Your task to perform on an android device: toggle notification dots Image 0: 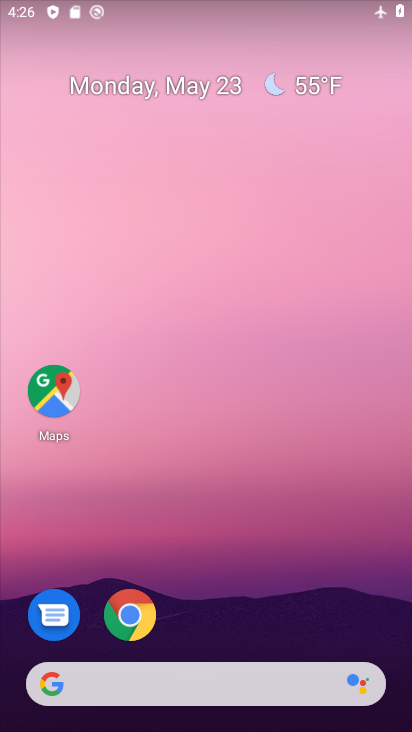
Step 0: drag from (343, 585) to (350, 289)
Your task to perform on an android device: toggle notification dots Image 1: 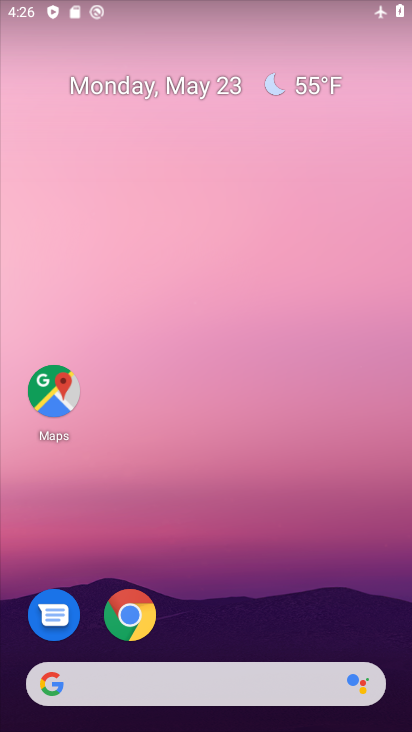
Step 1: drag from (347, 637) to (360, 274)
Your task to perform on an android device: toggle notification dots Image 2: 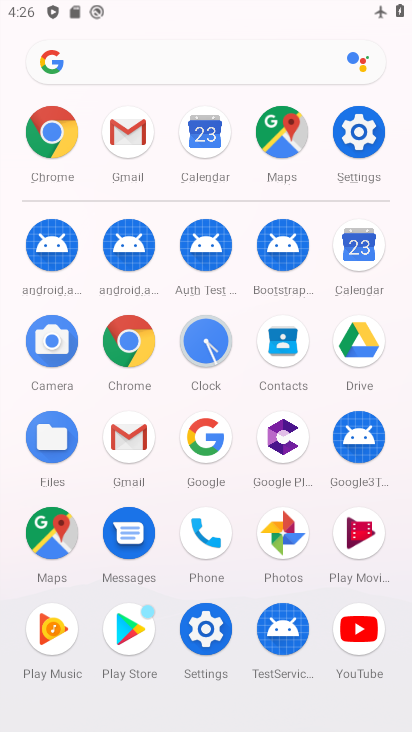
Step 2: click (227, 644)
Your task to perform on an android device: toggle notification dots Image 3: 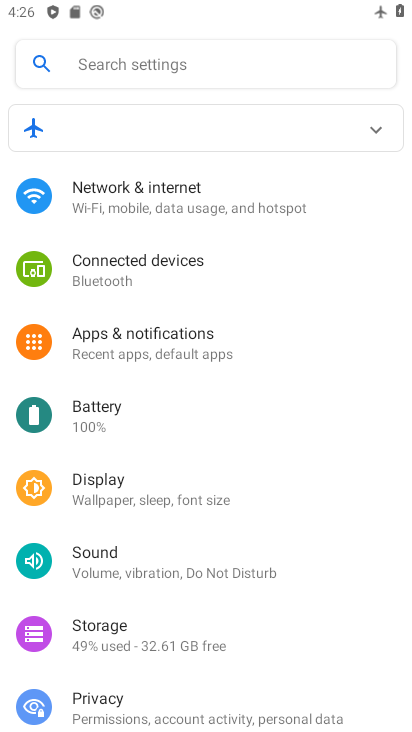
Step 3: drag from (338, 644) to (345, 534)
Your task to perform on an android device: toggle notification dots Image 4: 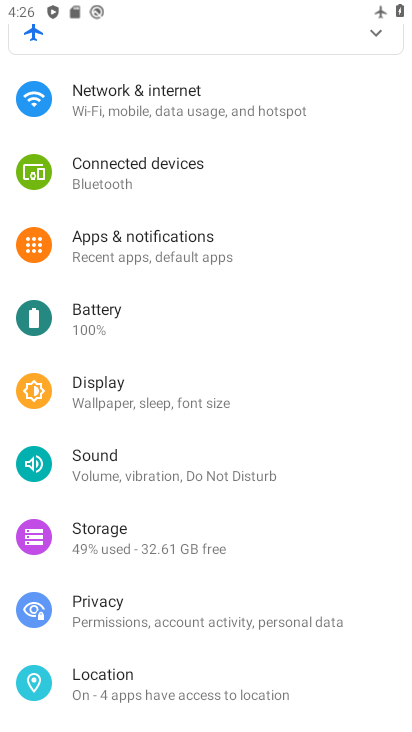
Step 4: drag from (347, 680) to (350, 563)
Your task to perform on an android device: toggle notification dots Image 5: 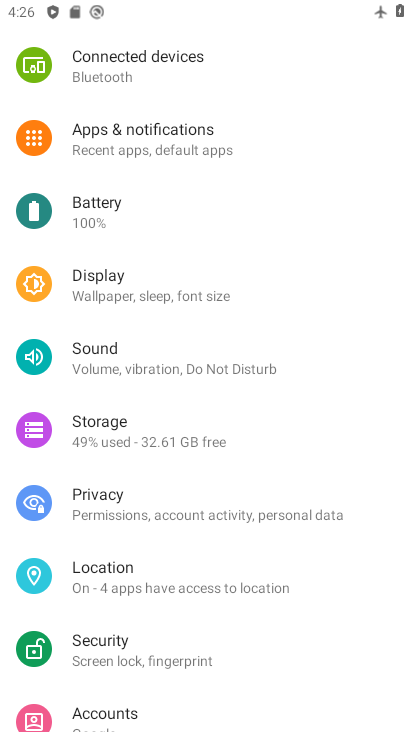
Step 5: drag from (339, 670) to (341, 574)
Your task to perform on an android device: toggle notification dots Image 6: 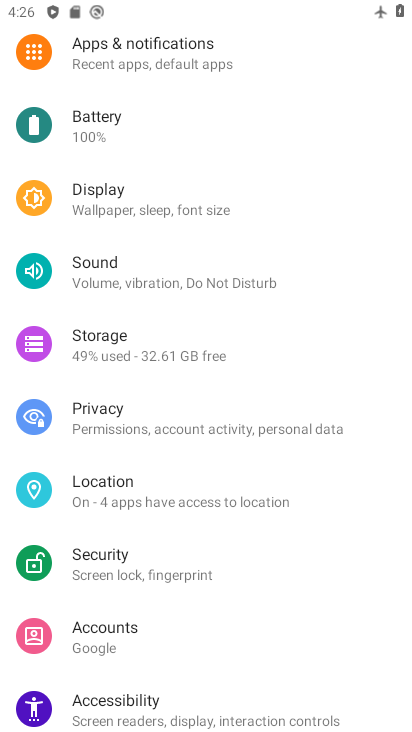
Step 6: drag from (335, 672) to (357, 556)
Your task to perform on an android device: toggle notification dots Image 7: 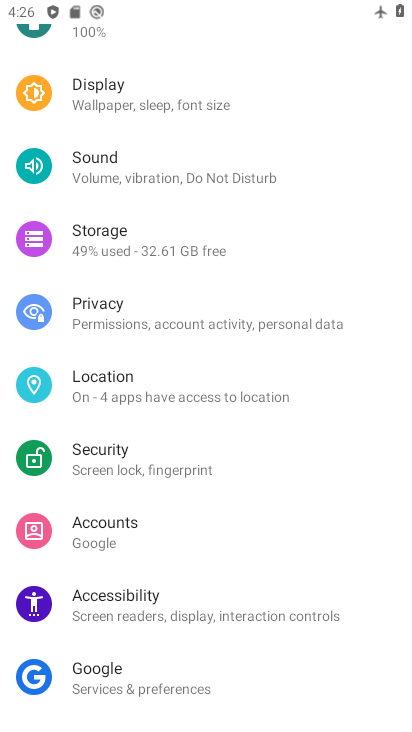
Step 7: drag from (357, 676) to (372, 544)
Your task to perform on an android device: toggle notification dots Image 8: 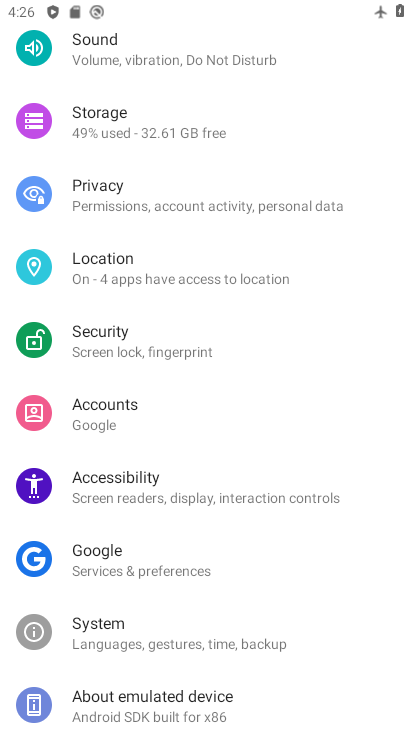
Step 8: drag from (356, 635) to (358, 498)
Your task to perform on an android device: toggle notification dots Image 9: 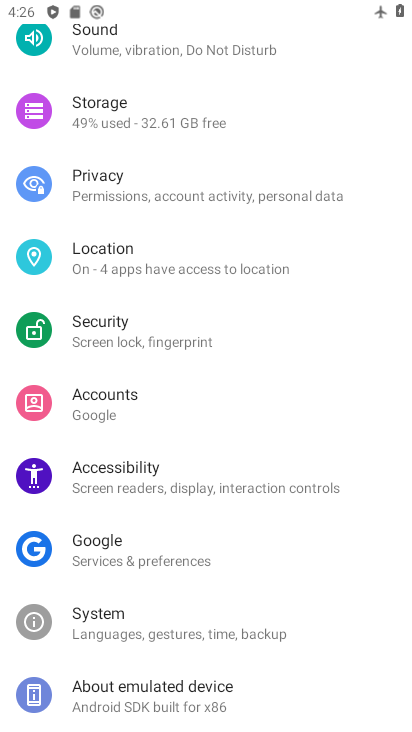
Step 9: drag from (340, 394) to (342, 496)
Your task to perform on an android device: toggle notification dots Image 10: 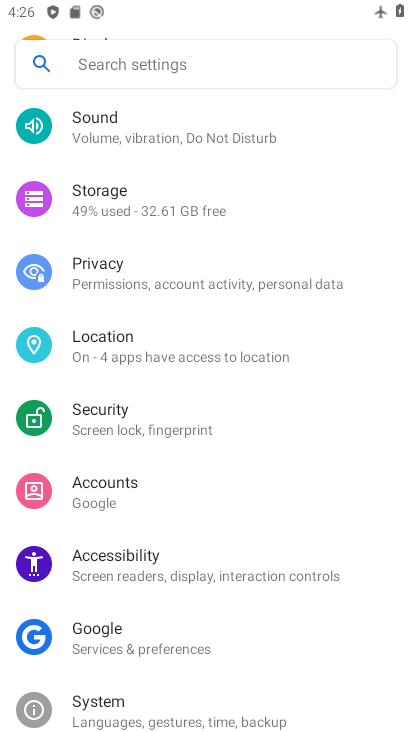
Step 10: drag from (345, 391) to (350, 490)
Your task to perform on an android device: toggle notification dots Image 11: 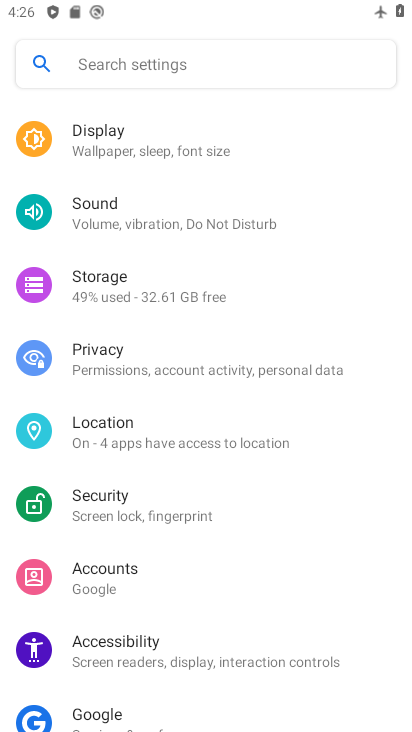
Step 11: drag from (372, 373) to (368, 488)
Your task to perform on an android device: toggle notification dots Image 12: 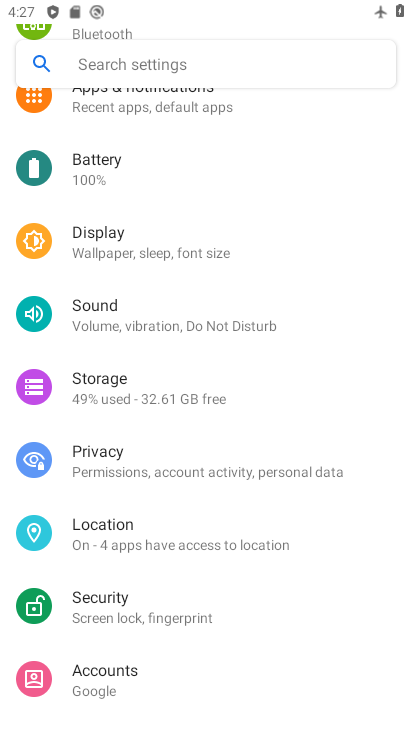
Step 12: drag from (352, 370) to (344, 513)
Your task to perform on an android device: toggle notification dots Image 13: 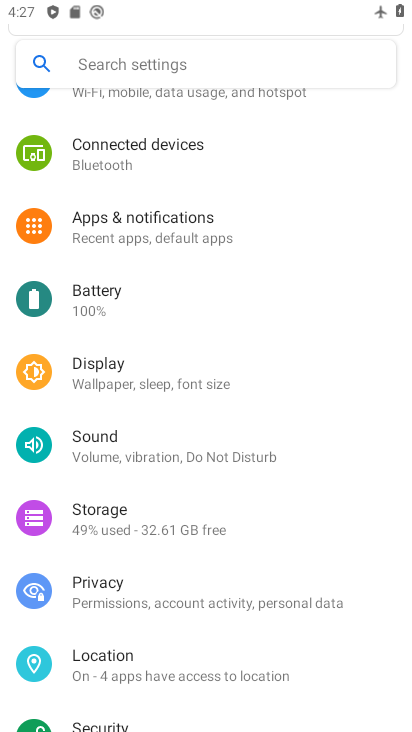
Step 13: drag from (354, 339) to (362, 475)
Your task to perform on an android device: toggle notification dots Image 14: 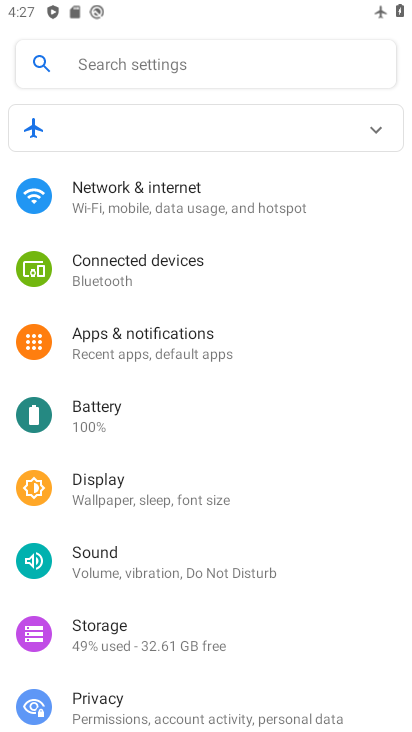
Step 14: drag from (327, 306) to (330, 423)
Your task to perform on an android device: toggle notification dots Image 15: 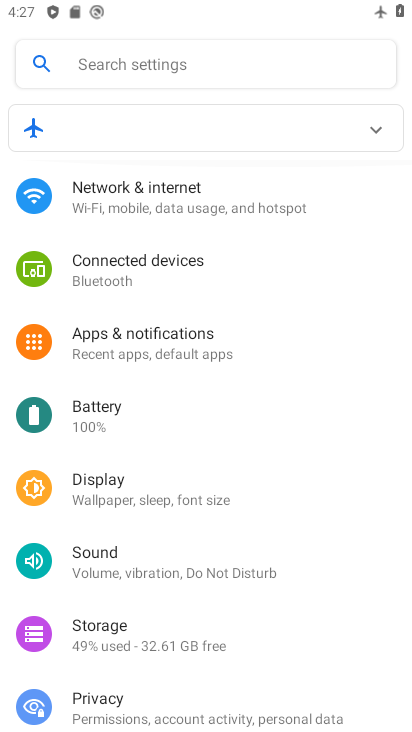
Step 15: click (180, 348)
Your task to perform on an android device: toggle notification dots Image 16: 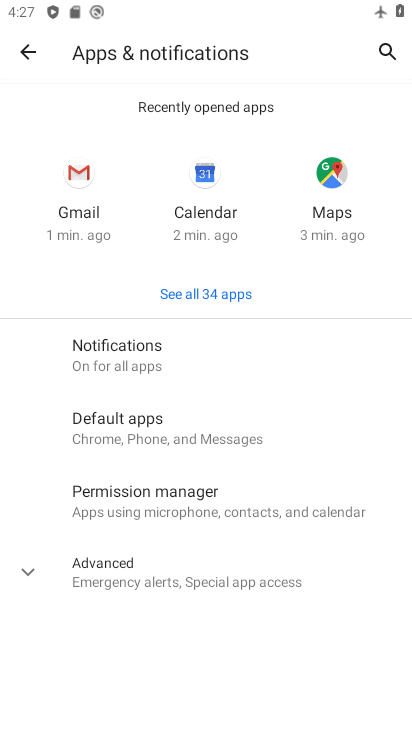
Step 16: click (231, 390)
Your task to perform on an android device: toggle notification dots Image 17: 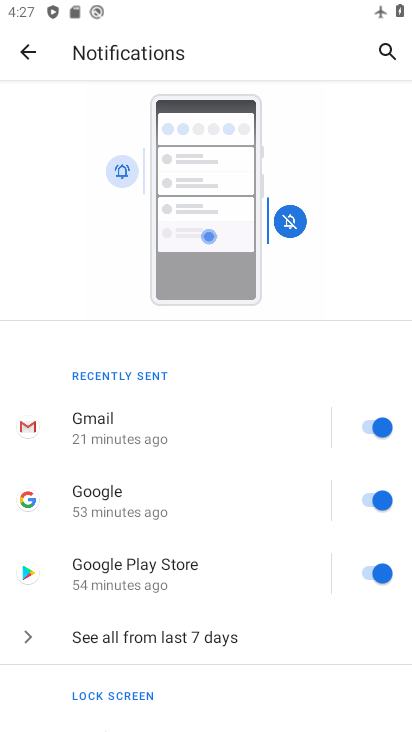
Step 17: drag from (265, 577) to (263, 456)
Your task to perform on an android device: toggle notification dots Image 18: 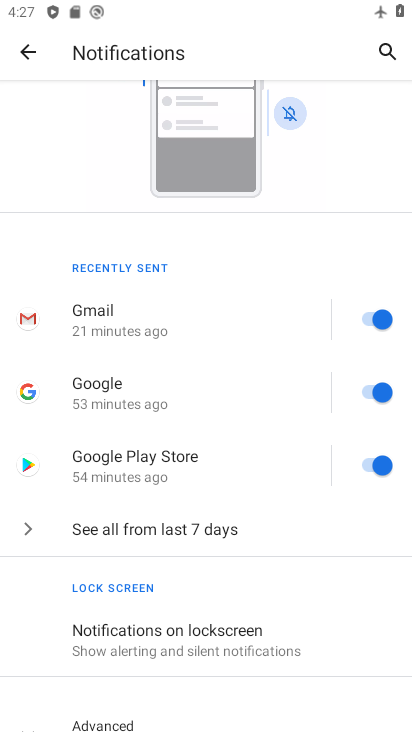
Step 18: drag from (273, 615) to (277, 505)
Your task to perform on an android device: toggle notification dots Image 19: 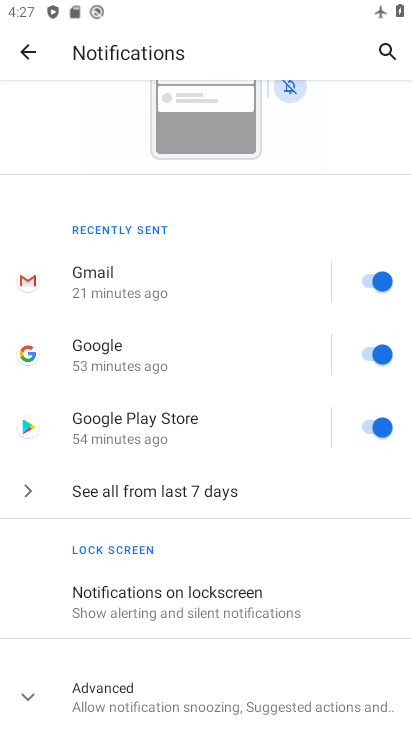
Step 19: click (230, 699)
Your task to perform on an android device: toggle notification dots Image 20: 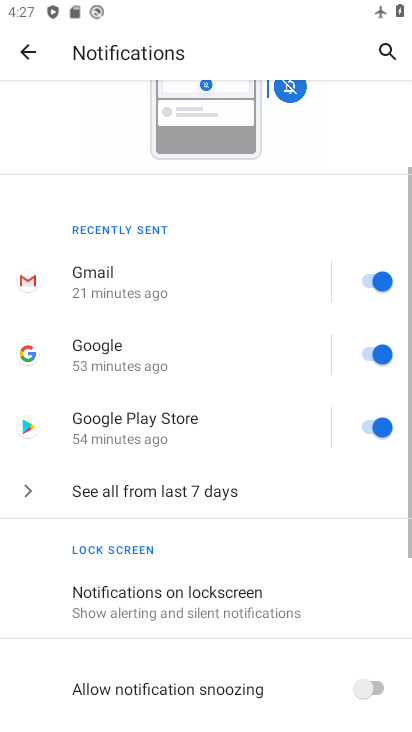
Step 20: drag from (284, 641) to (285, 494)
Your task to perform on an android device: toggle notification dots Image 21: 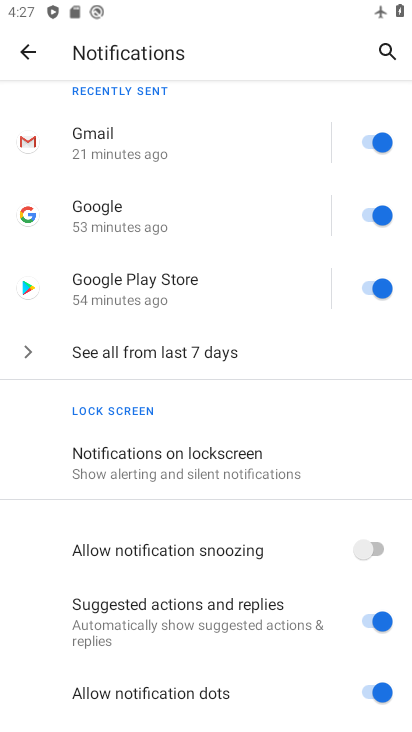
Step 21: drag from (292, 646) to (293, 533)
Your task to perform on an android device: toggle notification dots Image 22: 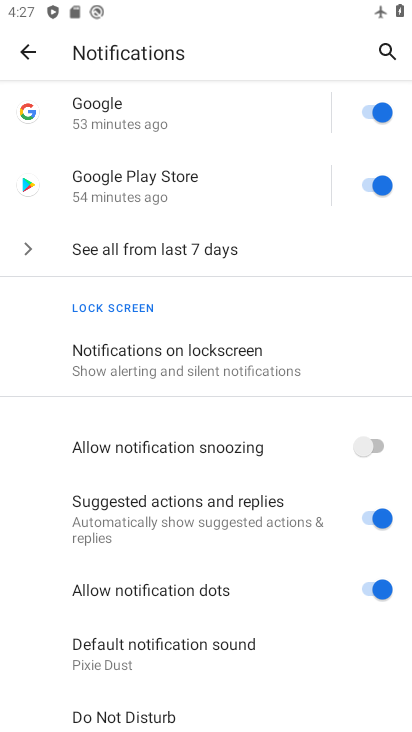
Step 22: click (358, 591)
Your task to perform on an android device: toggle notification dots Image 23: 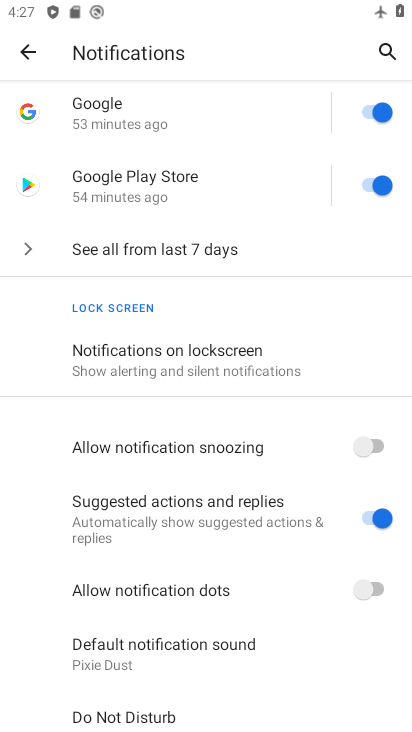
Step 23: task complete